Your task to perform on an android device: toggle pop-ups in chrome Image 0: 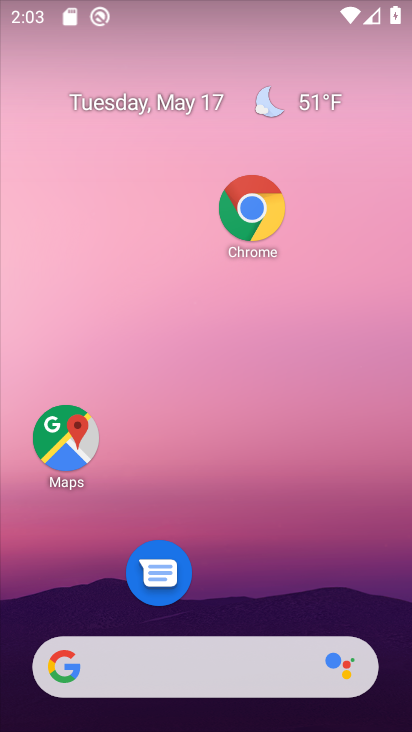
Step 0: drag from (222, 618) to (188, 136)
Your task to perform on an android device: toggle pop-ups in chrome Image 1: 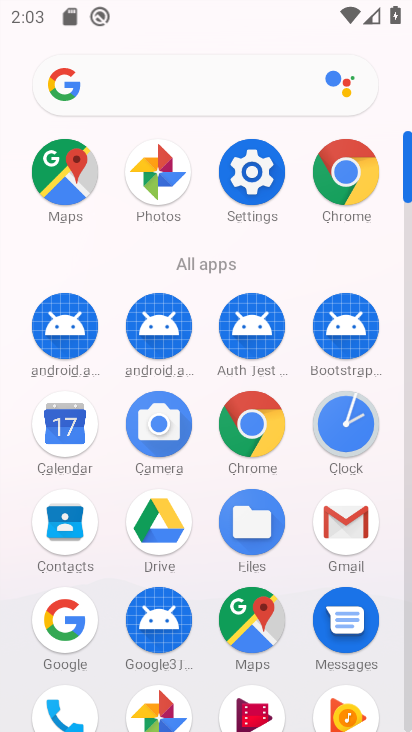
Step 1: click (264, 434)
Your task to perform on an android device: toggle pop-ups in chrome Image 2: 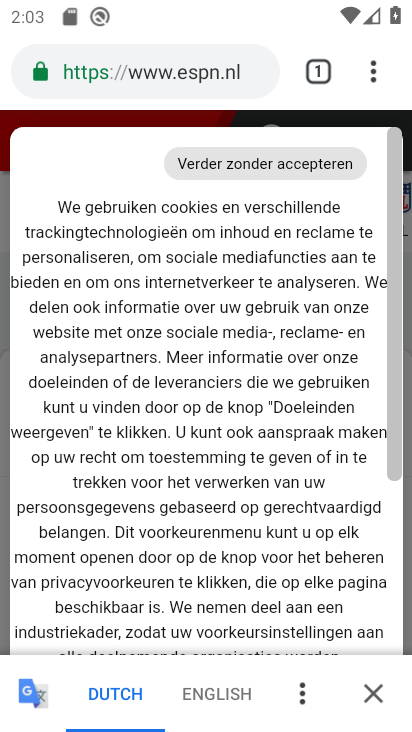
Step 2: click (373, 76)
Your task to perform on an android device: toggle pop-ups in chrome Image 3: 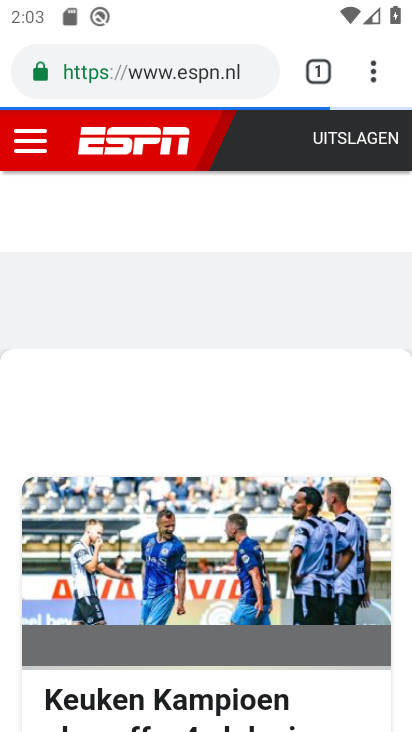
Step 3: click (370, 60)
Your task to perform on an android device: toggle pop-ups in chrome Image 4: 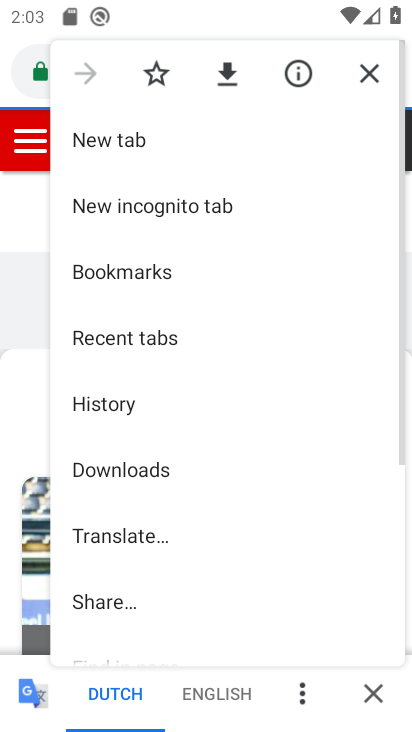
Step 4: drag from (206, 526) to (187, 152)
Your task to perform on an android device: toggle pop-ups in chrome Image 5: 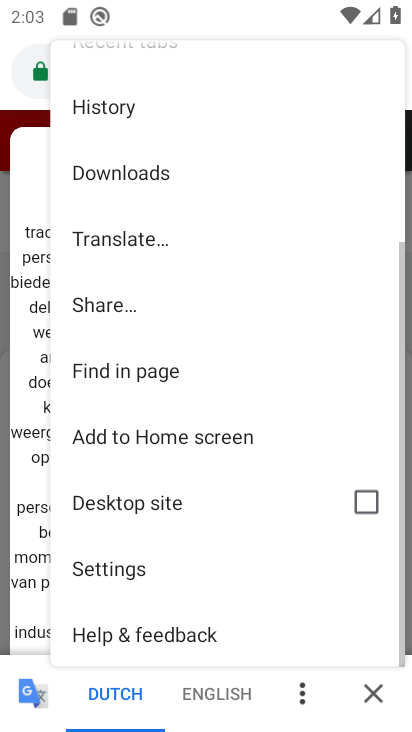
Step 5: click (138, 550)
Your task to perform on an android device: toggle pop-ups in chrome Image 6: 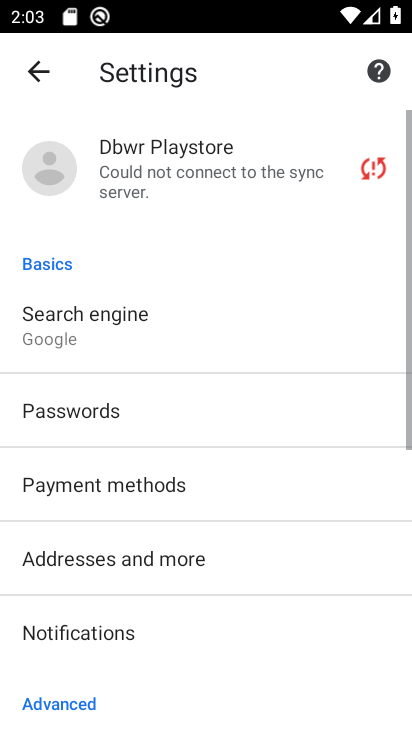
Step 6: drag from (141, 520) to (138, 186)
Your task to perform on an android device: toggle pop-ups in chrome Image 7: 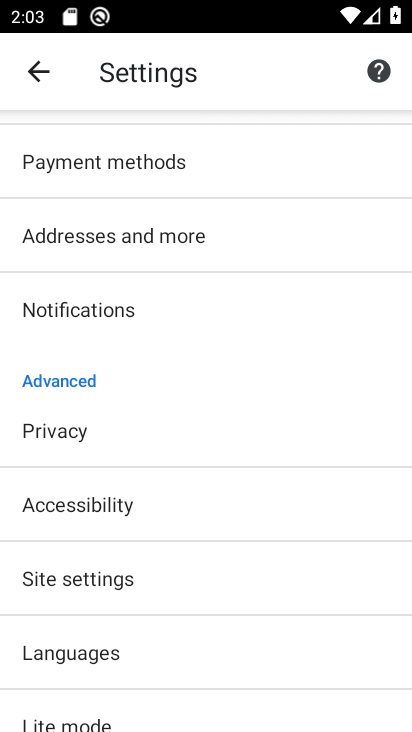
Step 7: click (127, 582)
Your task to perform on an android device: toggle pop-ups in chrome Image 8: 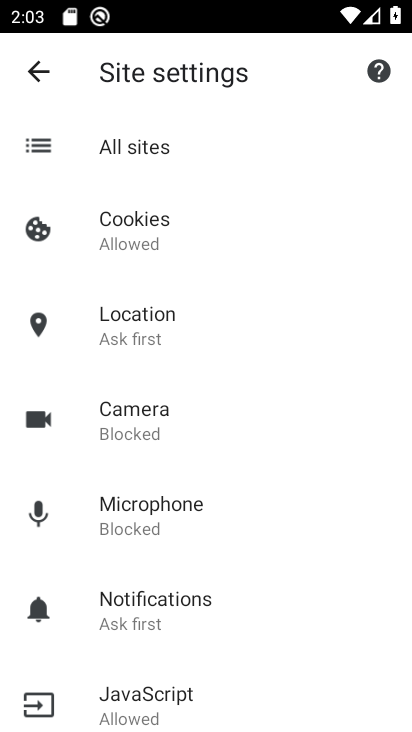
Step 8: drag from (202, 491) to (186, 176)
Your task to perform on an android device: toggle pop-ups in chrome Image 9: 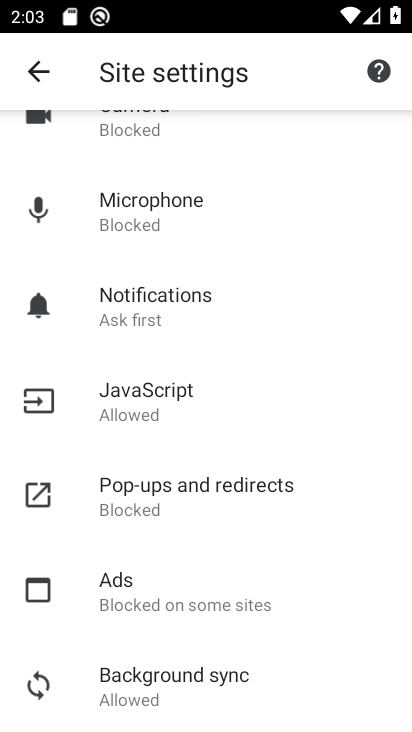
Step 9: drag from (193, 579) to (189, 273)
Your task to perform on an android device: toggle pop-ups in chrome Image 10: 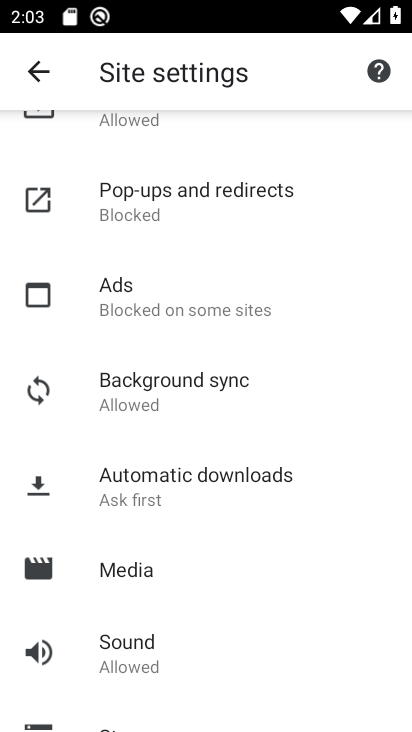
Step 10: drag from (182, 248) to (189, 282)
Your task to perform on an android device: toggle pop-ups in chrome Image 11: 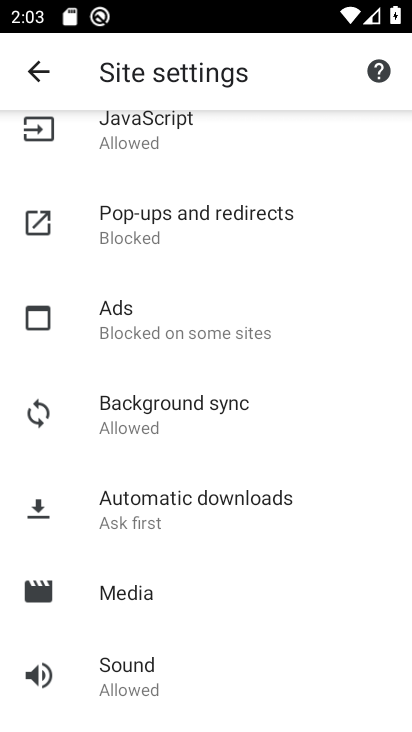
Step 11: click (171, 234)
Your task to perform on an android device: toggle pop-ups in chrome Image 12: 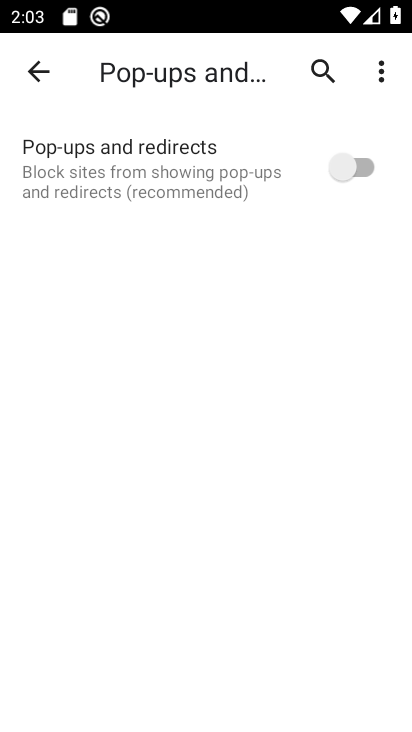
Step 12: click (338, 175)
Your task to perform on an android device: toggle pop-ups in chrome Image 13: 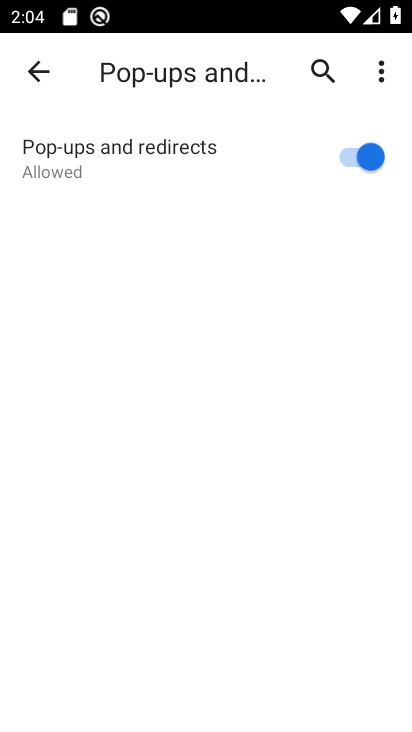
Step 13: task complete